Your task to perform on an android device: Go to Google maps Image 0: 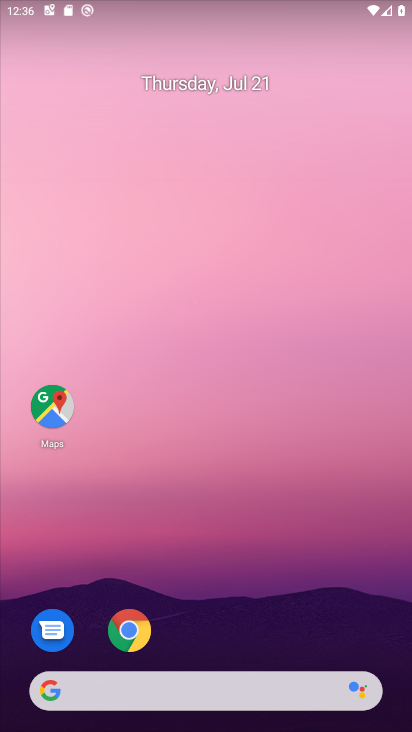
Step 0: drag from (171, 629) to (228, 206)
Your task to perform on an android device: Go to Google maps Image 1: 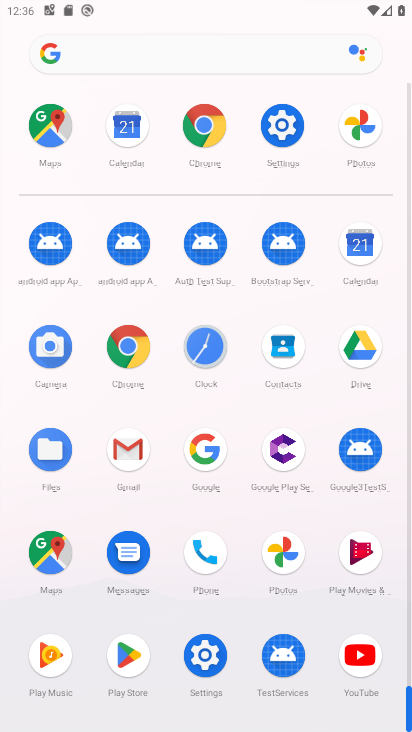
Step 1: click (49, 545)
Your task to perform on an android device: Go to Google maps Image 2: 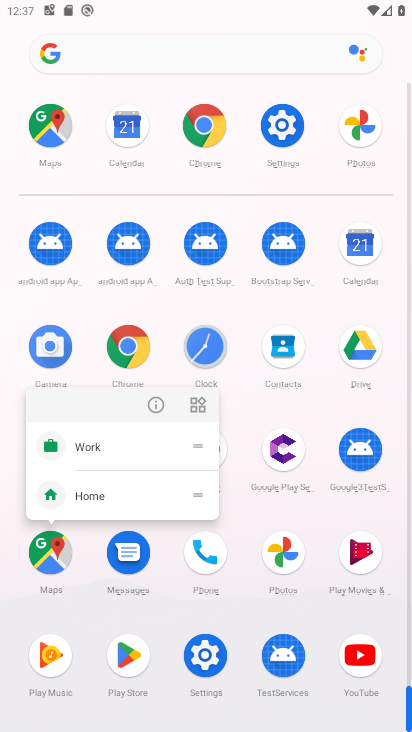
Step 2: click (156, 404)
Your task to perform on an android device: Go to Google maps Image 3: 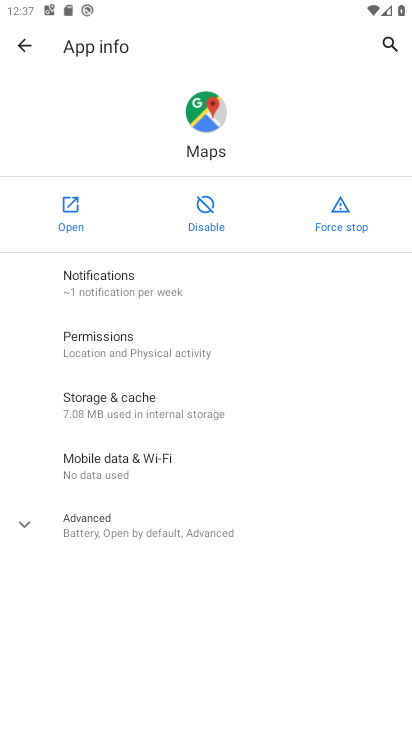
Step 3: click (77, 224)
Your task to perform on an android device: Go to Google maps Image 4: 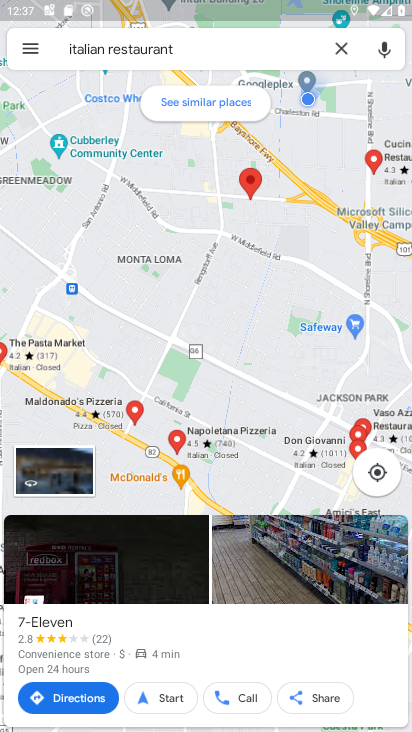
Step 4: task complete